Your task to perform on an android device: delete location history Image 0: 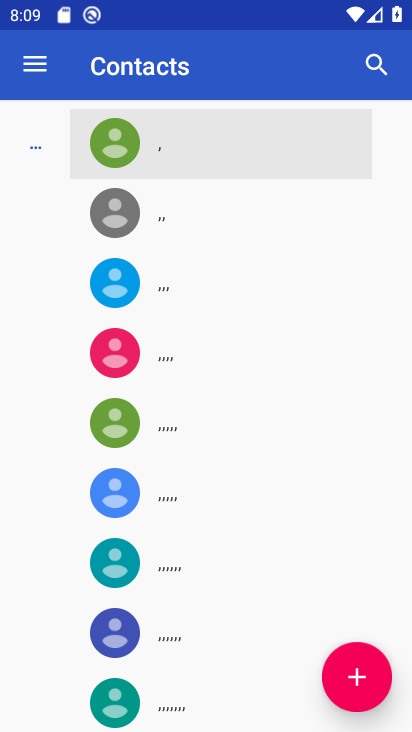
Step 0: press home button
Your task to perform on an android device: delete location history Image 1: 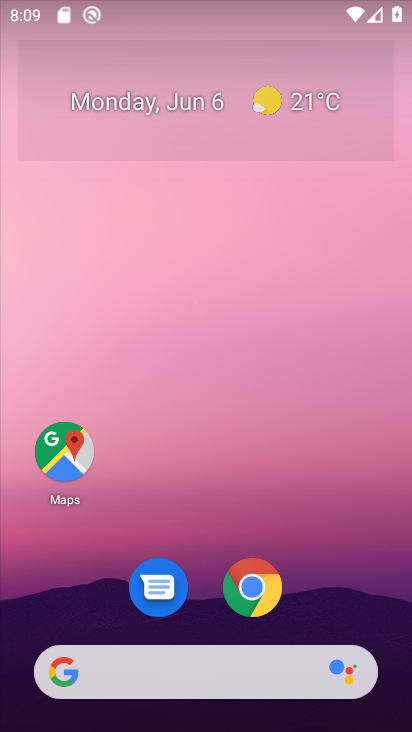
Step 1: drag from (349, 483) to (345, 96)
Your task to perform on an android device: delete location history Image 2: 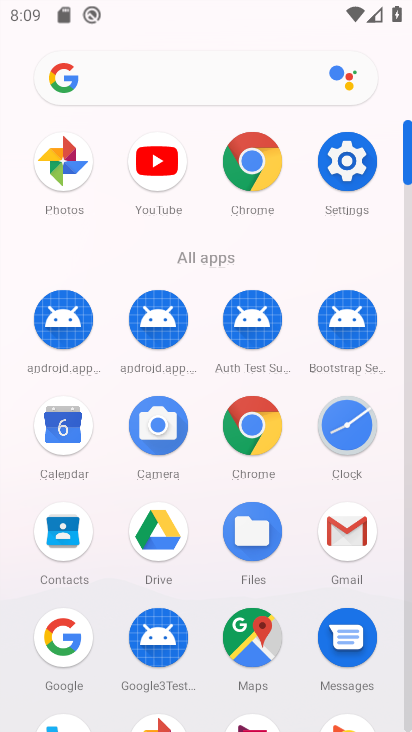
Step 2: click (253, 658)
Your task to perform on an android device: delete location history Image 3: 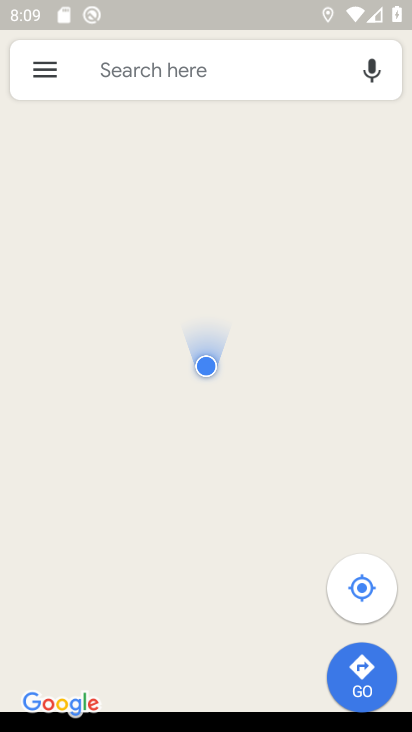
Step 3: click (51, 80)
Your task to perform on an android device: delete location history Image 4: 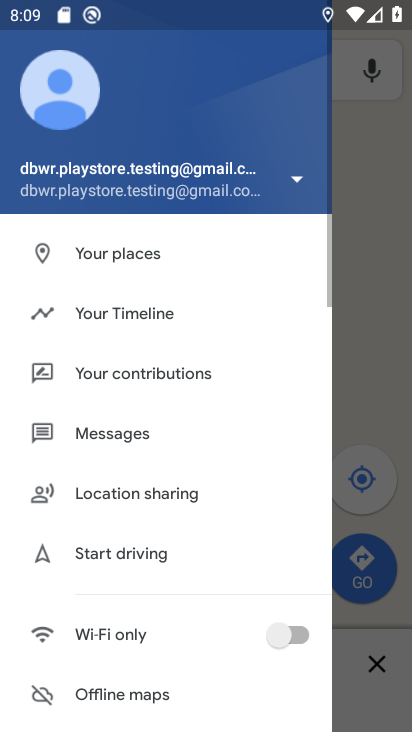
Step 4: click (141, 308)
Your task to perform on an android device: delete location history Image 5: 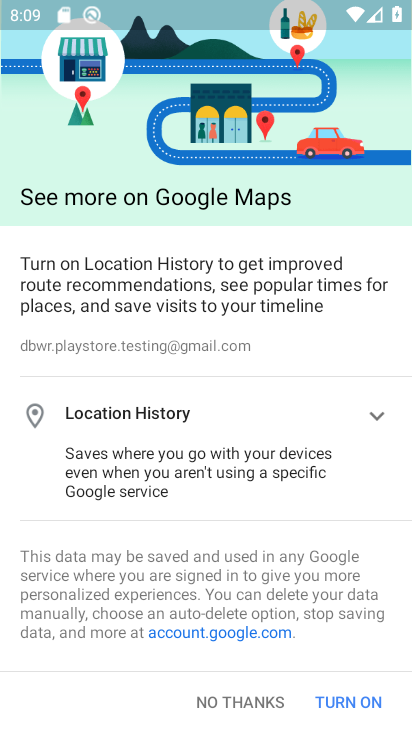
Step 5: click (251, 696)
Your task to perform on an android device: delete location history Image 6: 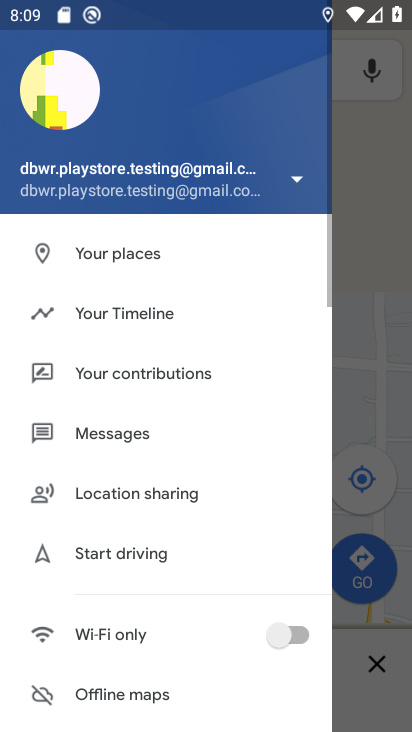
Step 6: click (157, 321)
Your task to perform on an android device: delete location history Image 7: 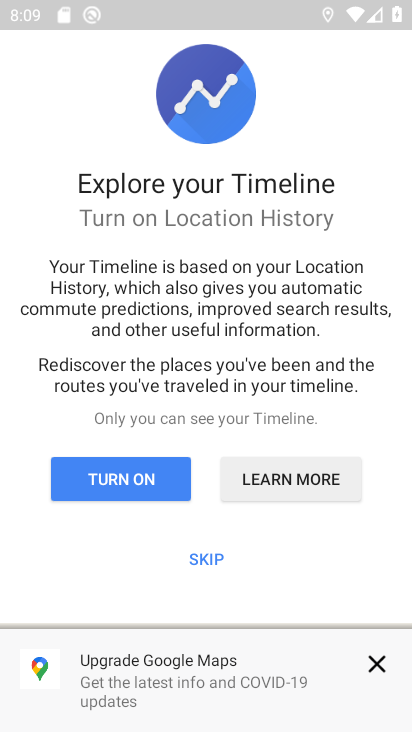
Step 7: click (200, 573)
Your task to perform on an android device: delete location history Image 8: 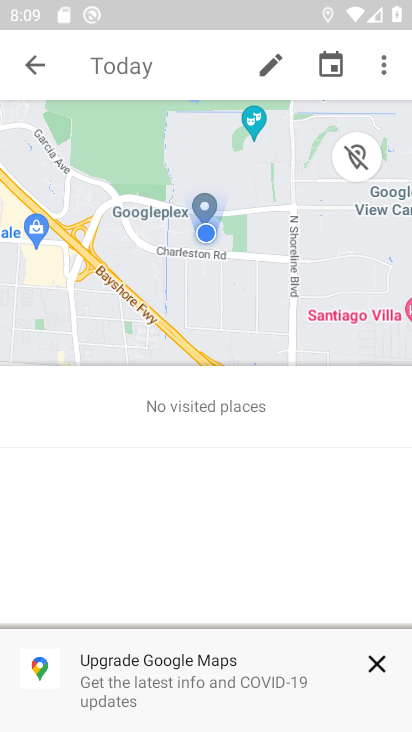
Step 8: click (383, 48)
Your task to perform on an android device: delete location history Image 9: 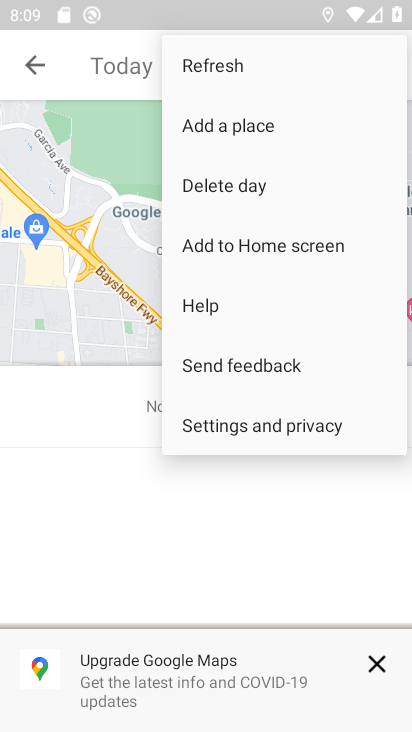
Step 9: click (274, 425)
Your task to perform on an android device: delete location history Image 10: 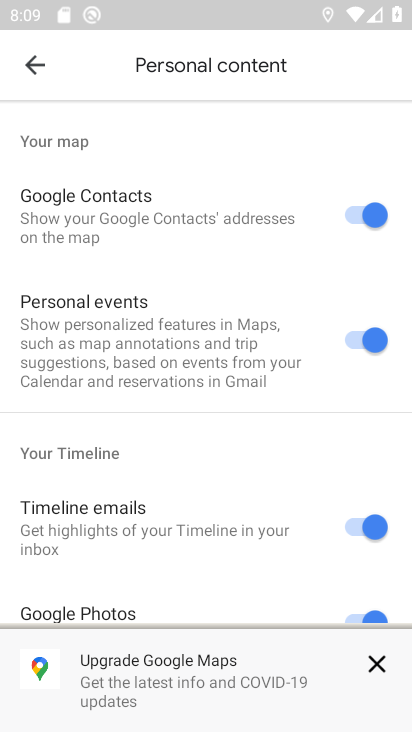
Step 10: drag from (161, 518) to (183, 222)
Your task to perform on an android device: delete location history Image 11: 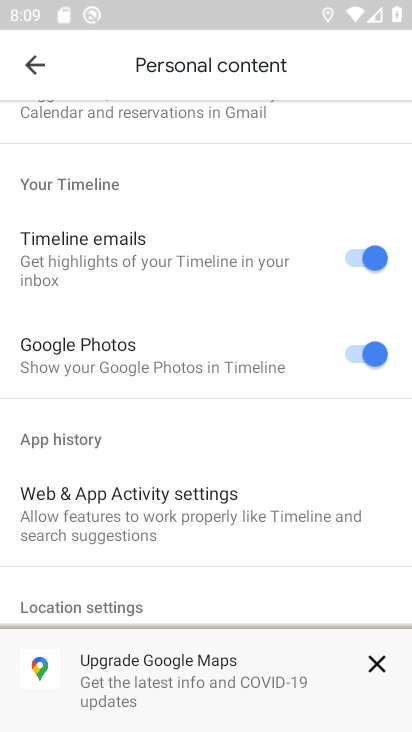
Step 11: drag from (212, 556) to (210, 173)
Your task to perform on an android device: delete location history Image 12: 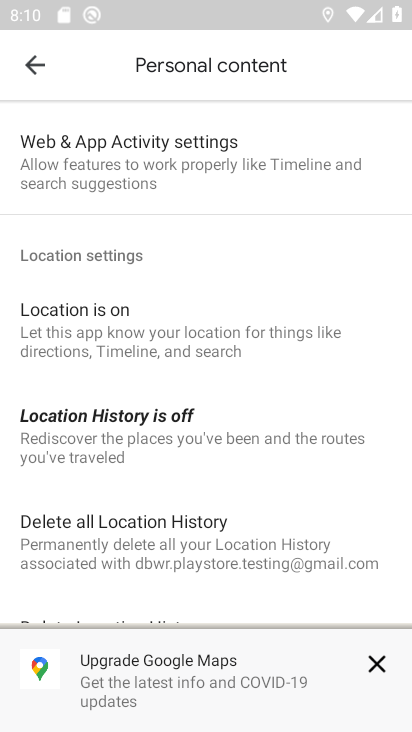
Step 12: drag from (251, 541) to (249, 328)
Your task to perform on an android device: delete location history Image 13: 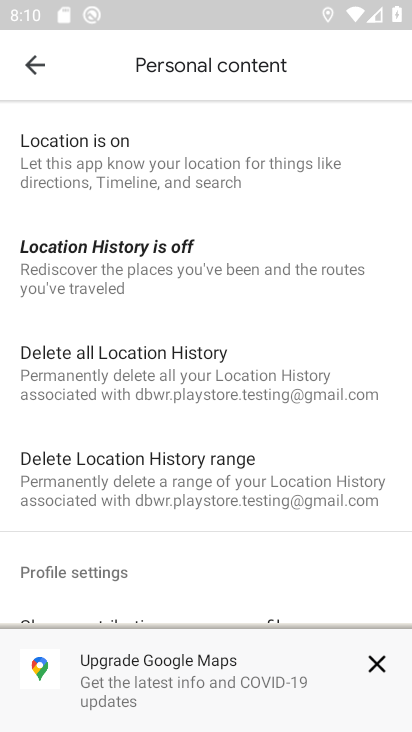
Step 13: click (207, 372)
Your task to perform on an android device: delete location history Image 14: 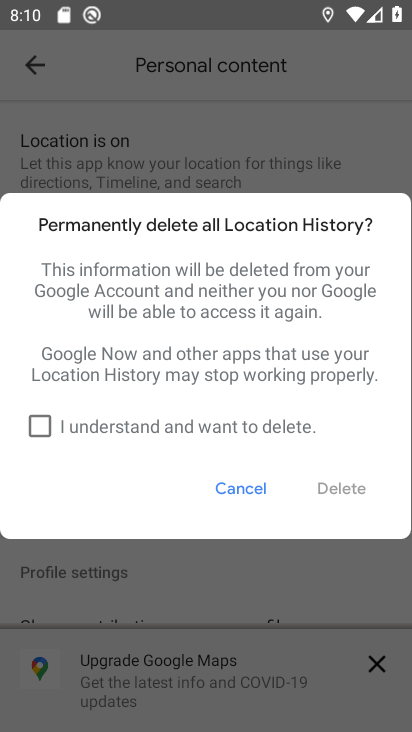
Step 14: click (134, 423)
Your task to perform on an android device: delete location history Image 15: 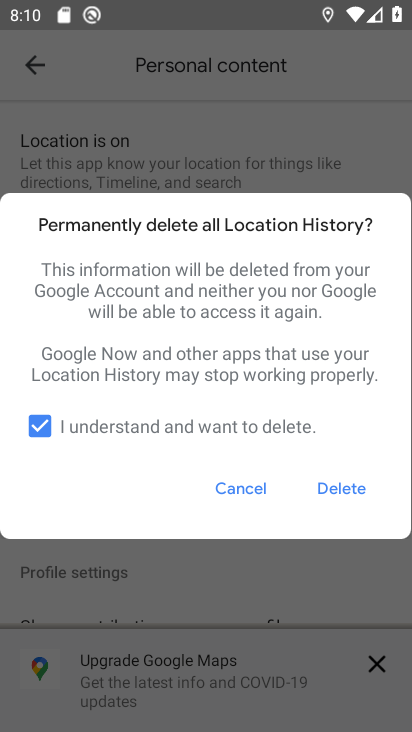
Step 15: click (345, 489)
Your task to perform on an android device: delete location history Image 16: 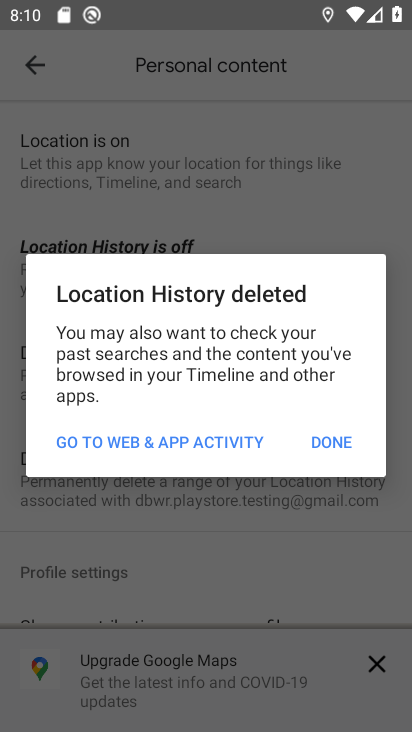
Step 16: click (318, 445)
Your task to perform on an android device: delete location history Image 17: 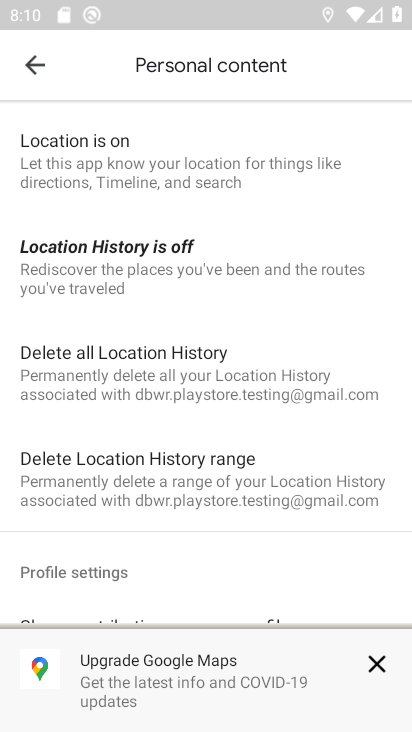
Step 17: task complete